Your task to perform on an android device: toggle location history Image 0: 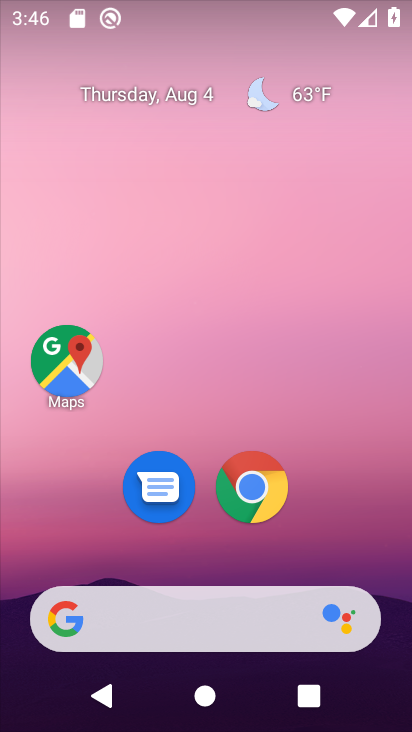
Step 0: drag from (110, 467) to (203, 39)
Your task to perform on an android device: toggle location history Image 1: 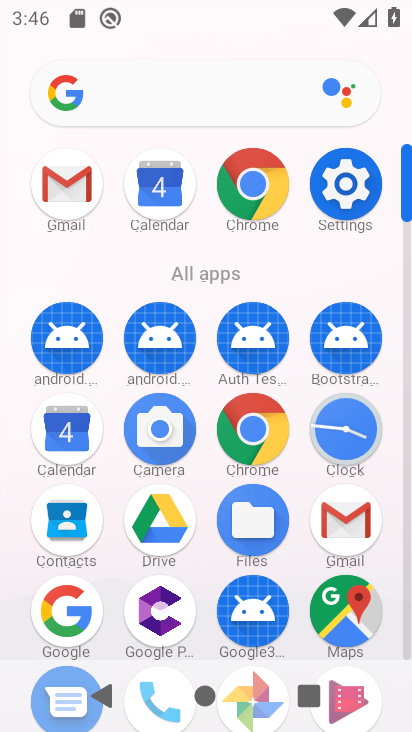
Step 1: click (353, 170)
Your task to perform on an android device: toggle location history Image 2: 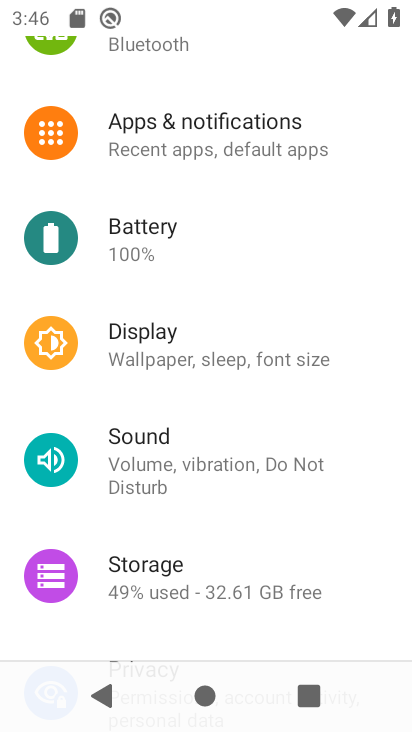
Step 2: drag from (157, 524) to (239, 17)
Your task to perform on an android device: toggle location history Image 3: 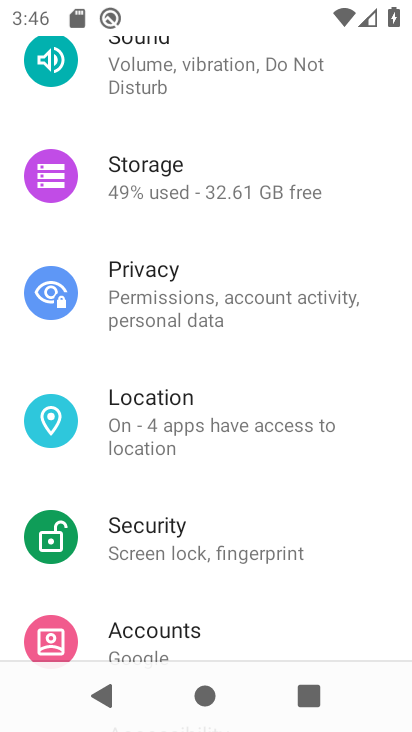
Step 3: click (144, 391)
Your task to perform on an android device: toggle location history Image 4: 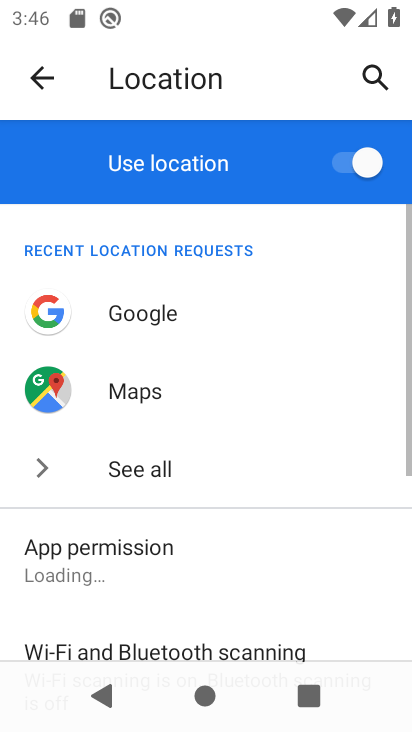
Step 4: drag from (110, 580) to (192, 71)
Your task to perform on an android device: toggle location history Image 5: 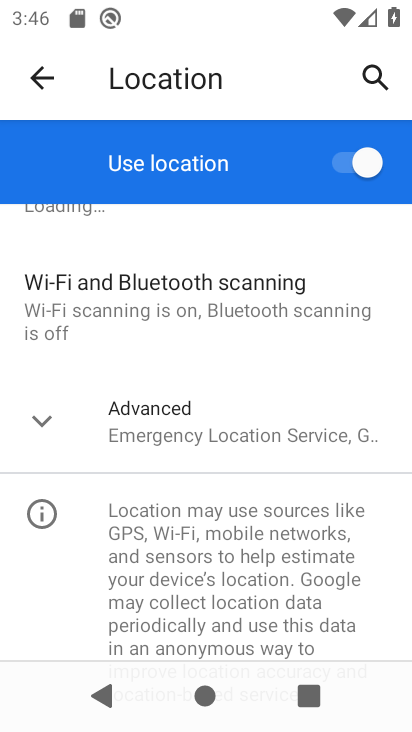
Step 5: click (164, 427)
Your task to perform on an android device: toggle location history Image 6: 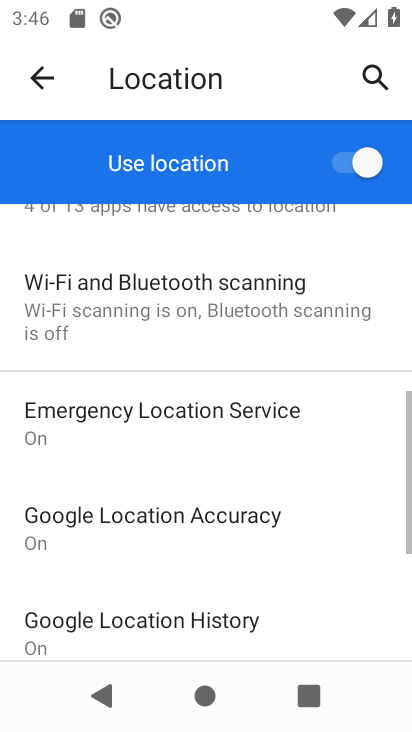
Step 6: click (194, 618)
Your task to perform on an android device: toggle location history Image 7: 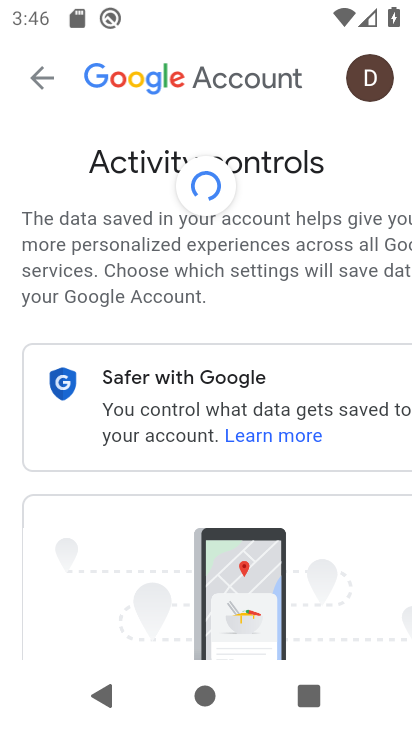
Step 7: drag from (175, 568) to (256, 67)
Your task to perform on an android device: toggle location history Image 8: 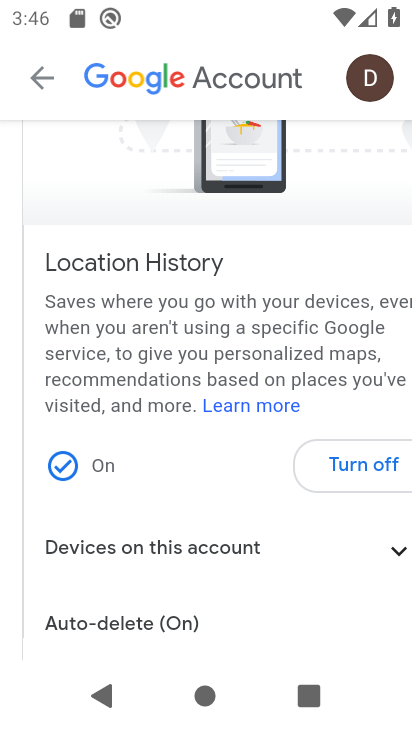
Step 8: click (355, 471)
Your task to perform on an android device: toggle location history Image 9: 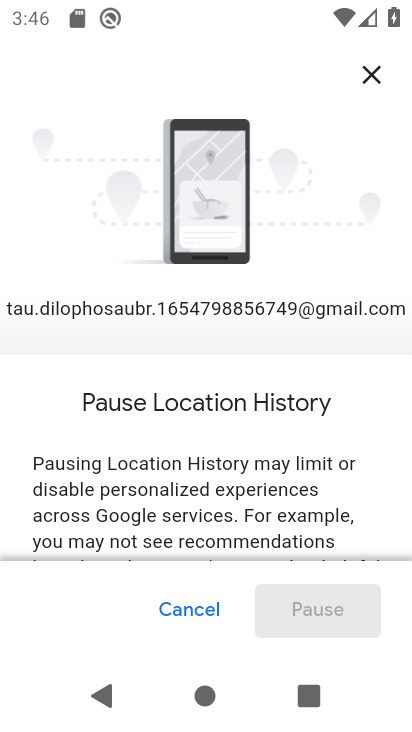
Step 9: drag from (197, 510) to (262, 57)
Your task to perform on an android device: toggle location history Image 10: 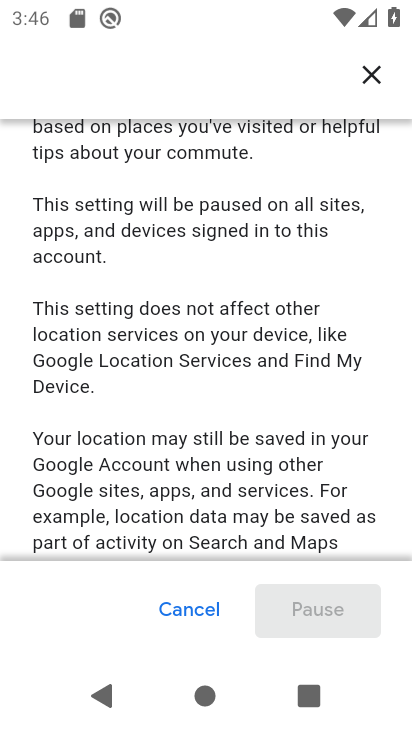
Step 10: drag from (190, 496) to (291, 2)
Your task to perform on an android device: toggle location history Image 11: 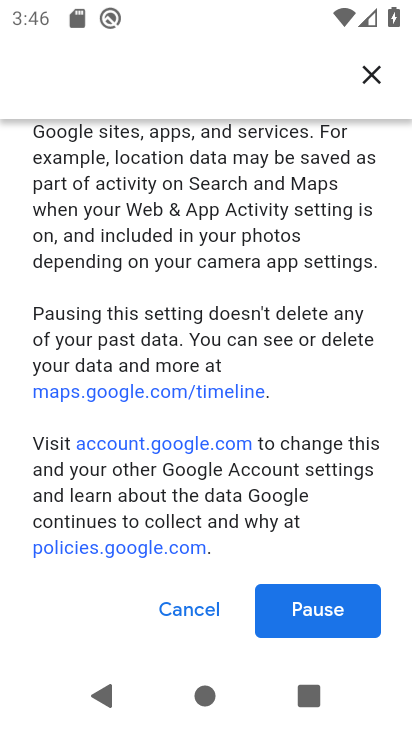
Step 11: click (304, 602)
Your task to perform on an android device: toggle location history Image 12: 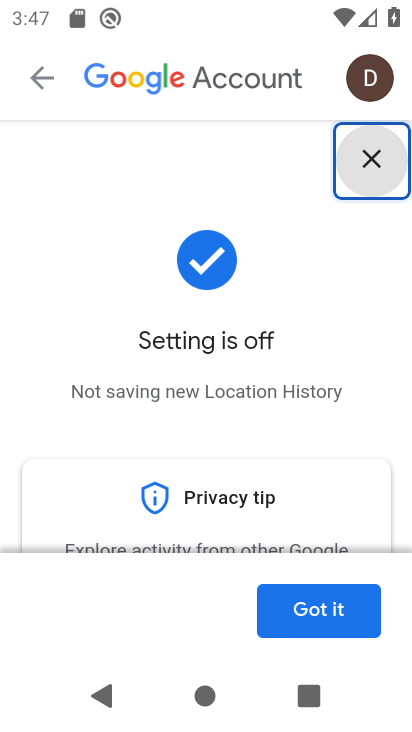
Step 12: click (310, 608)
Your task to perform on an android device: toggle location history Image 13: 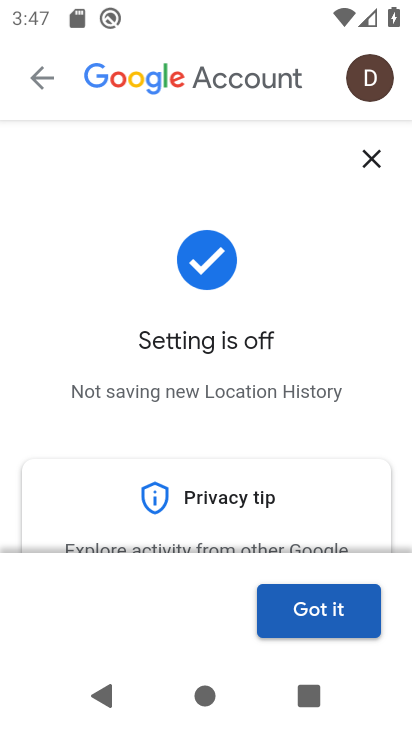
Step 13: task complete